Your task to perform on an android device: change keyboard looks Image 0: 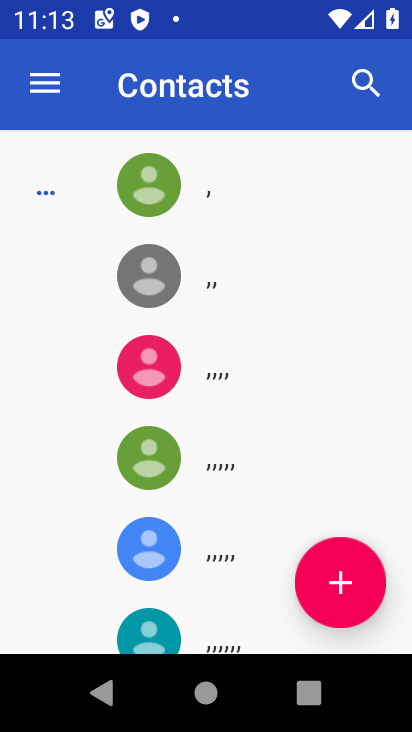
Step 0: press home button
Your task to perform on an android device: change keyboard looks Image 1: 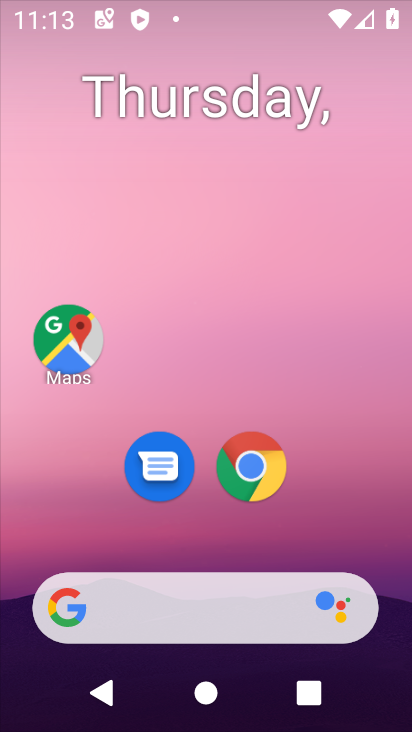
Step 1: drag from (387, 544) to (249, 48)
Your task to perform on an android device: change keyboard looks Image 2: 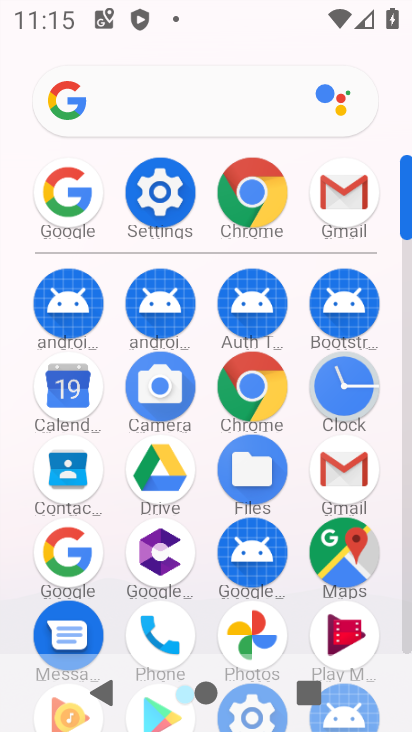
Step 2: click (174, 207)
Your task to perform on an android device: change keyboard looks Image 3: 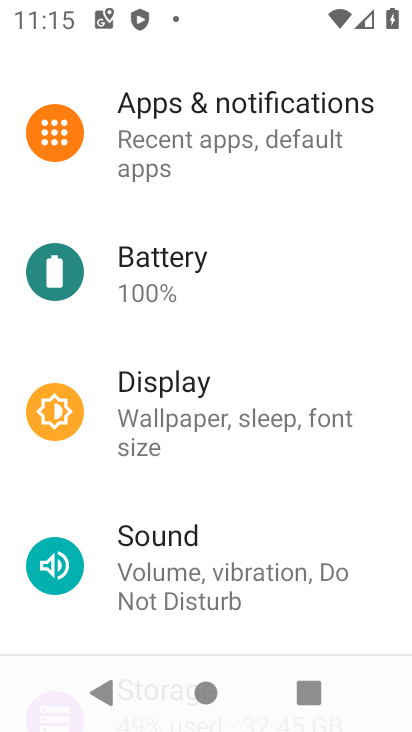
Step 3: drag from (164, 593) to (207, 56)
Your task to perform on an android device: change keyboard looks Image 4: 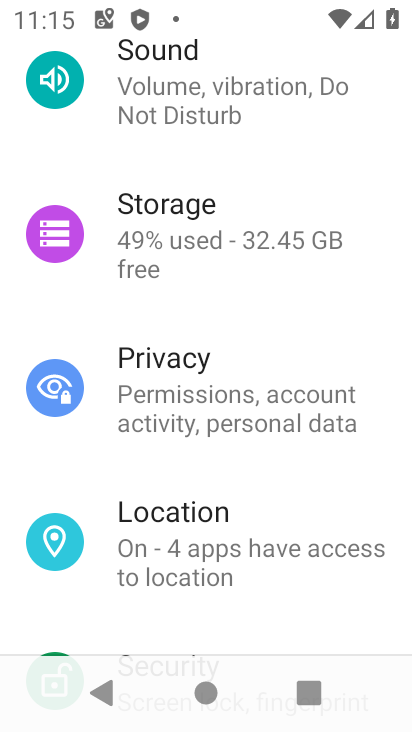
Step 4: drag from (202, 607) to (252, 1)
Your task to perform on an android device: change keyboard looks Image 5: 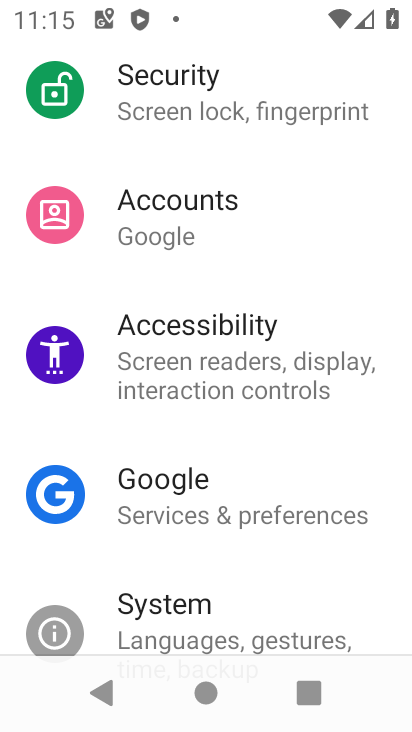
Step 5: drag from (179, 612) to (253, 21)
Your task to perform on an android device: change keyboard looks Image 6: 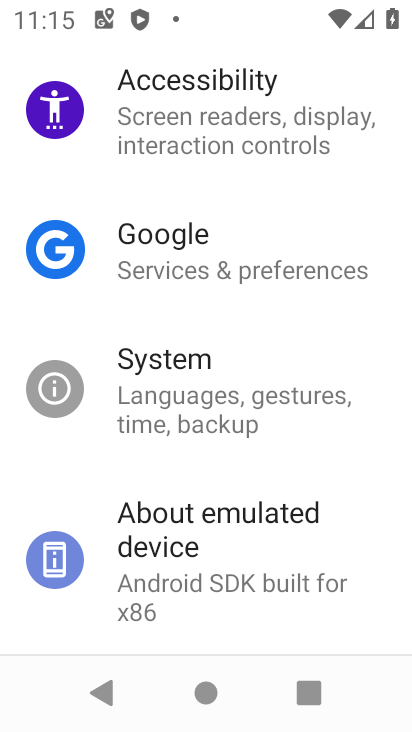
Step 6: click (187, 389)
Your task to perform on an android device: change keyboard looks Image 7: 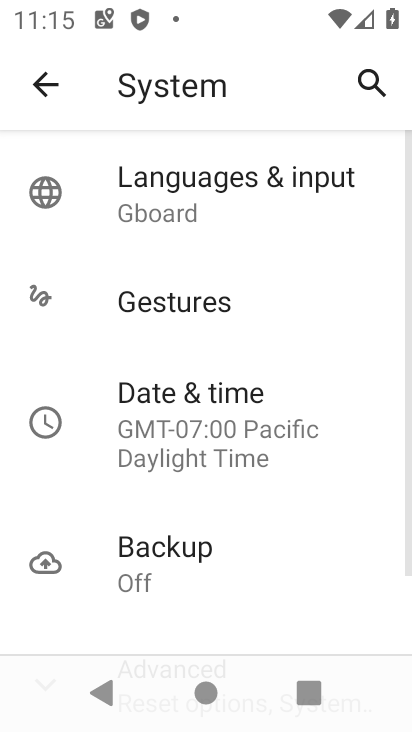
Step 7: click (185, 200)
Your task to perform on an android device: change keyboard looks Image 8: 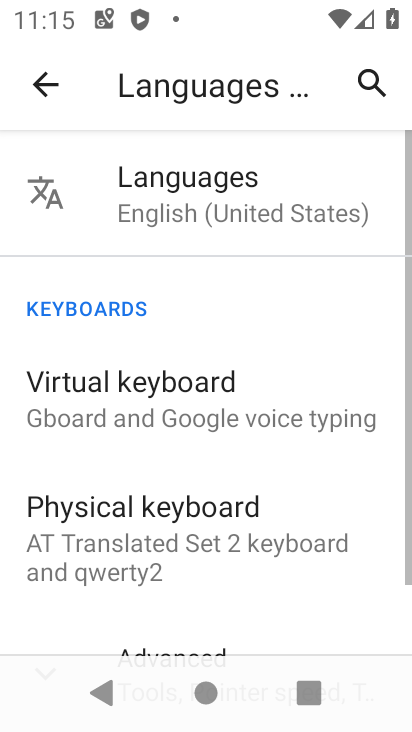
Step 8: click (152, 393)
Your task to perform on an android device: change keyboard looks Image 9: 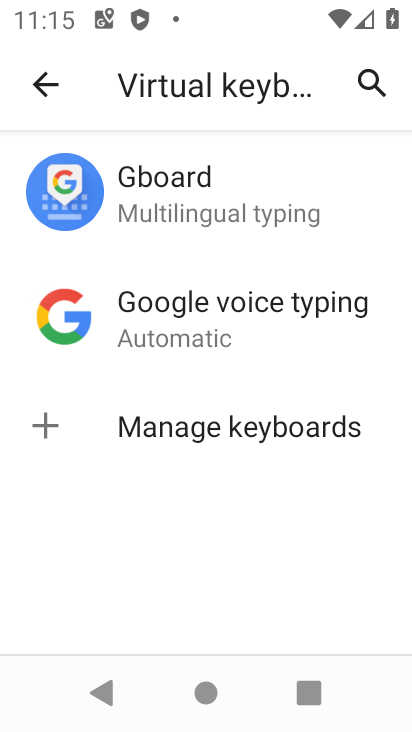
Step 9: click (200, 210)
Your task to perform on an android device: change keyboard looks Image 10: 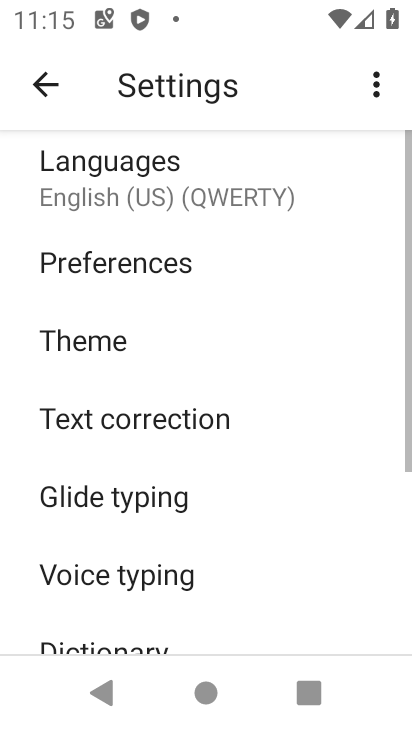
Step 10: click (166, 332)
Your task to perform on an android device: change keyboard looks Image 11: 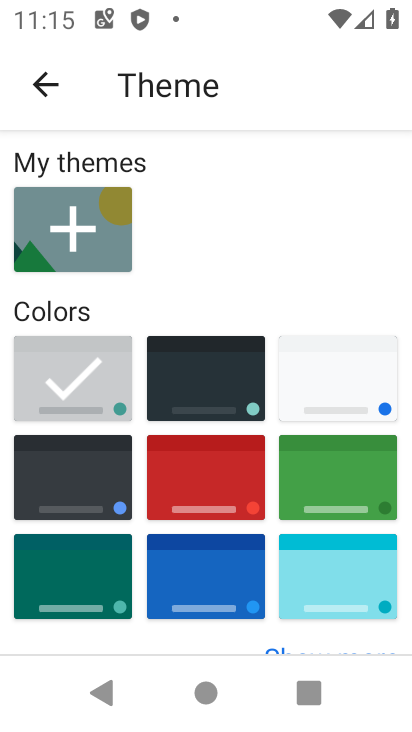
Step 11: click (209, 365)
Your task to perform on an android device: change keyboard looks Image 12: 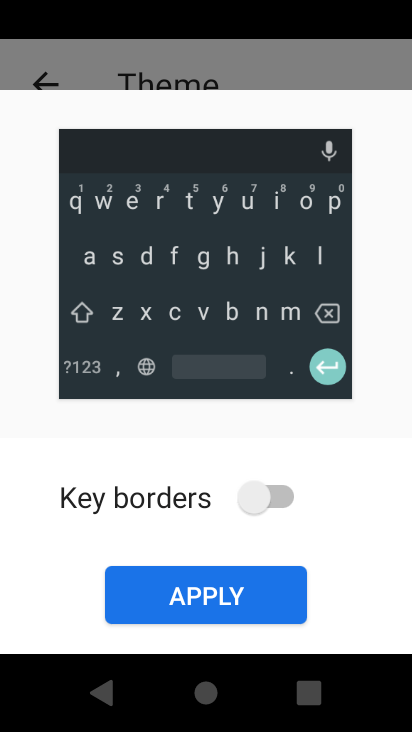
Step 12: click (178, 592)
Your task to perform on an android device: change keyboard looks Image 13: 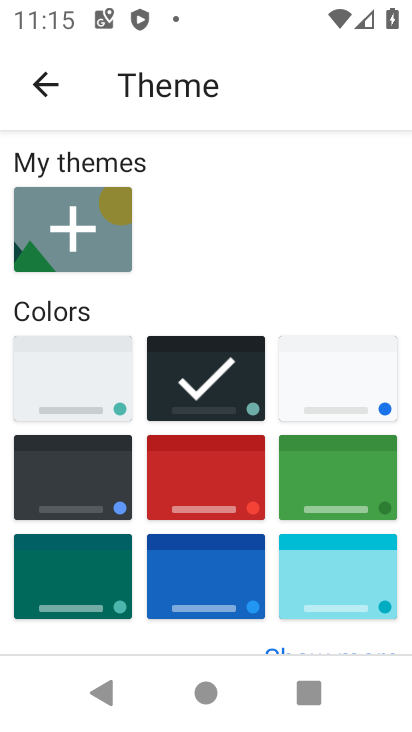
Step 13: task complete